Your task to perform on an android device: open app "Google Keep" (install if not already installed) Image 0: 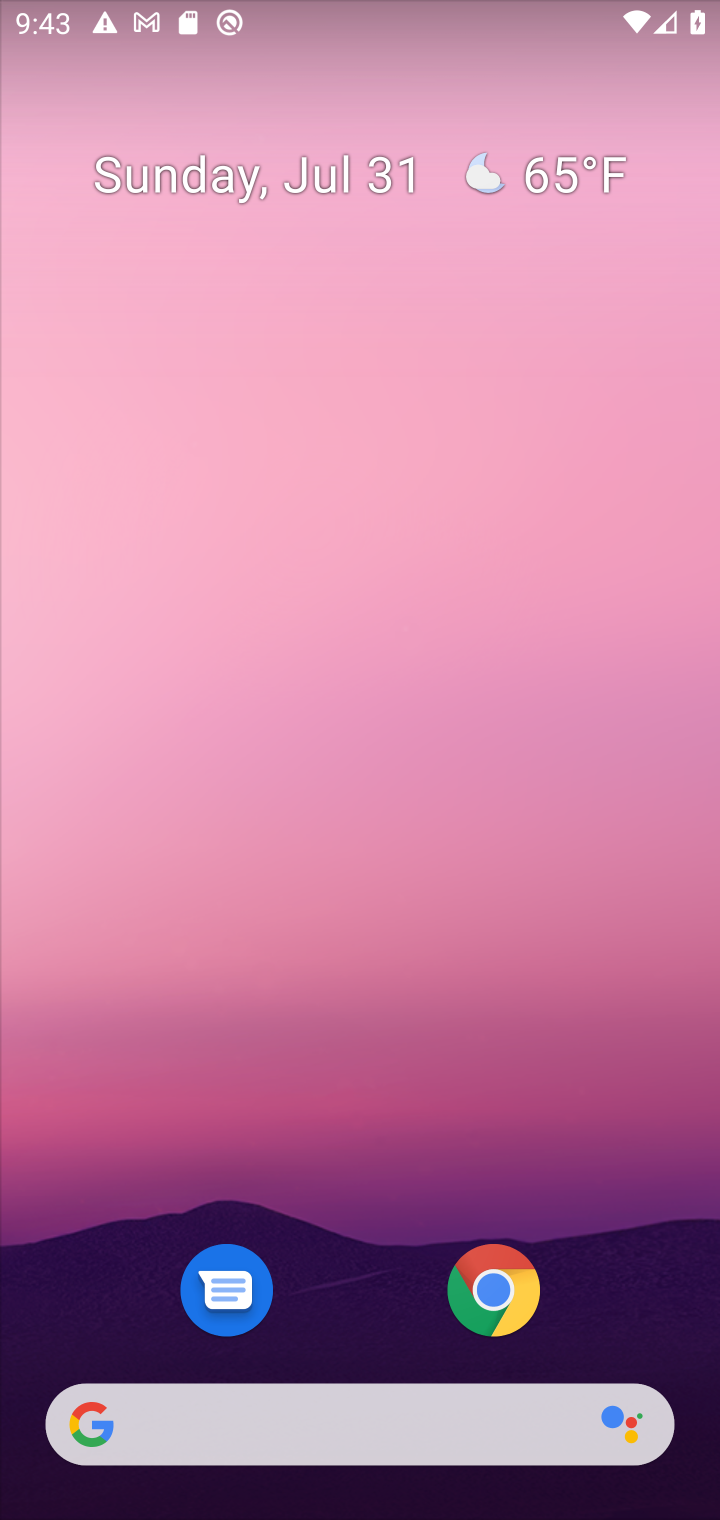
Step 0: press home button
Your task to perform on an android device: open app "Google Keep" (install if not already installed) Image 1: 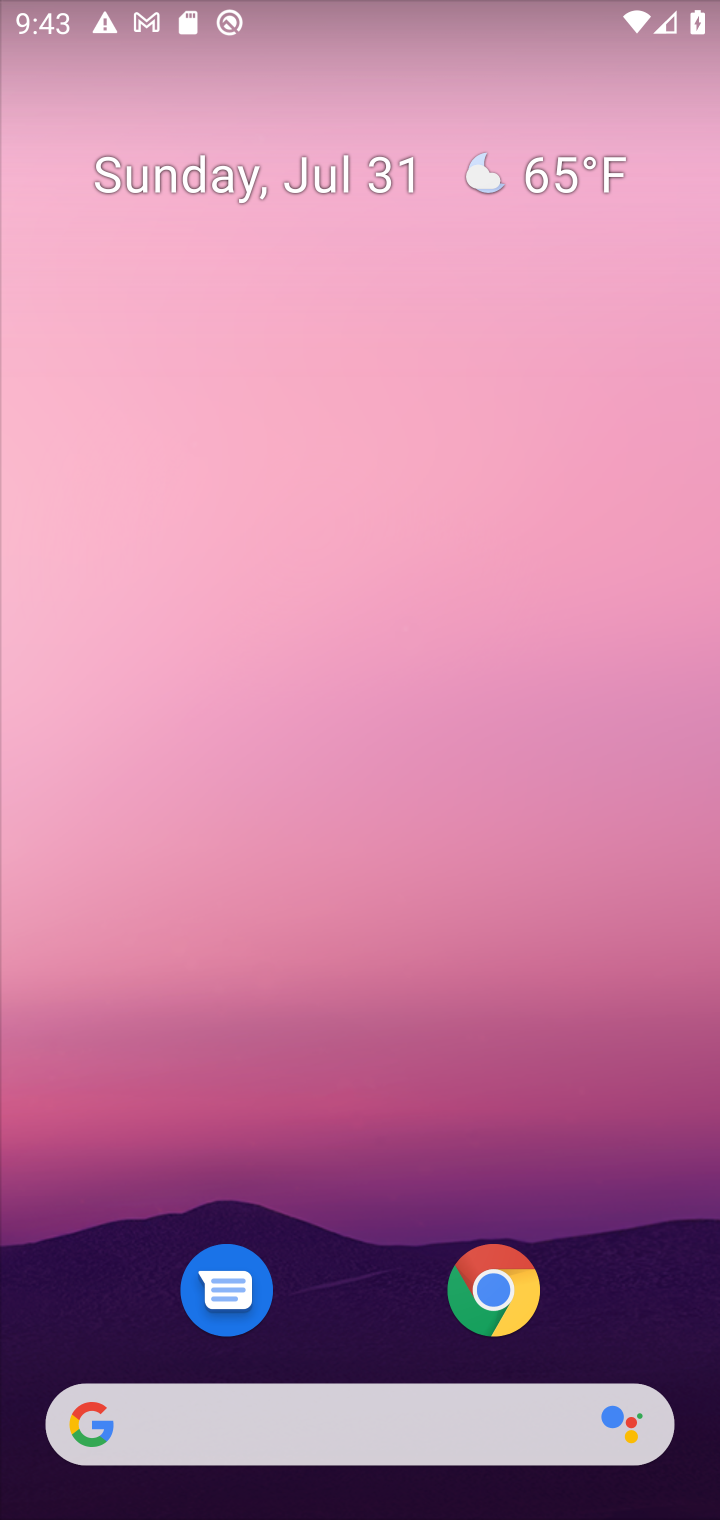
Step 1: drag from (618, 1286) to (636, 101)
Your task to perform on an android device: open app "Google Keep" (install if not already installed) Image 2: 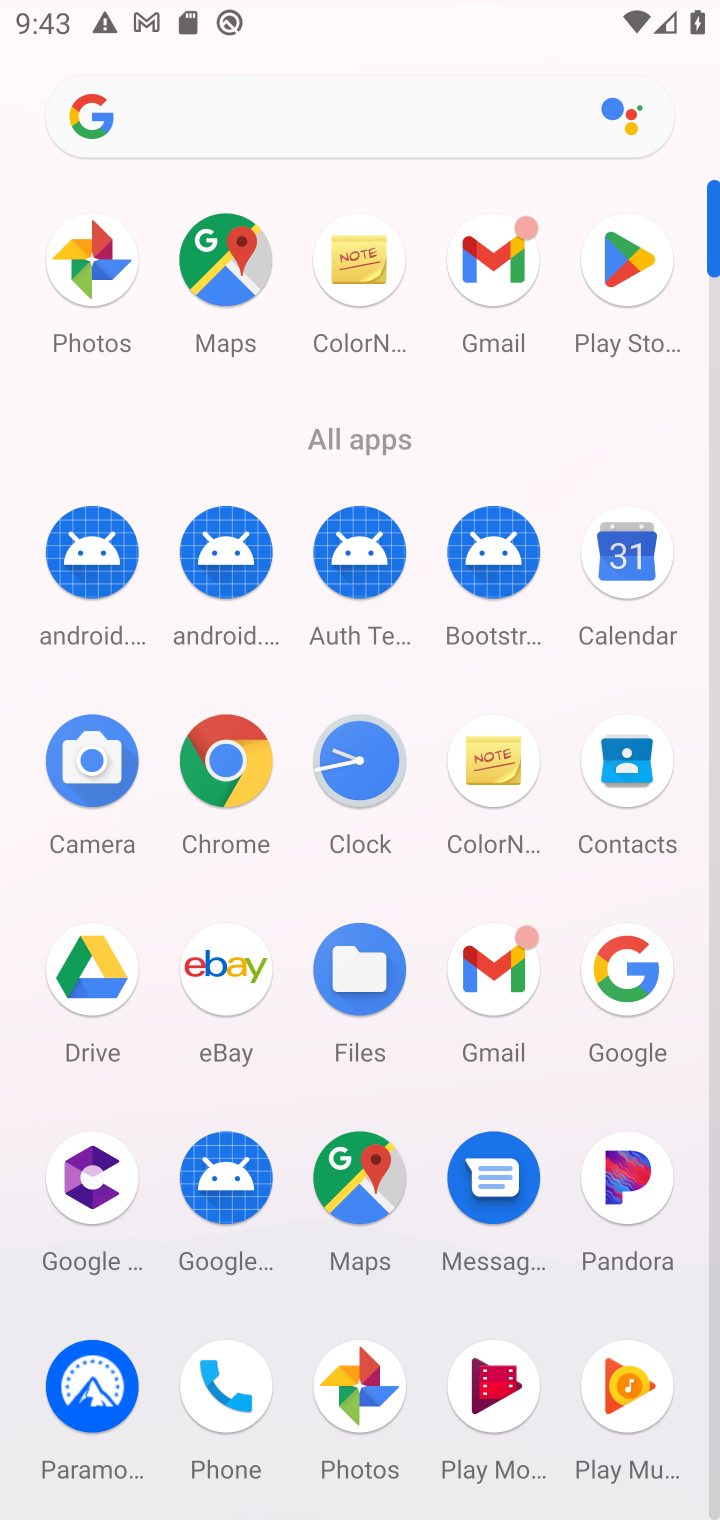
Step 2: click (620, 263)
Your task to perform on an android device: open app "Google Keep" (install if not already installed) Image 3: 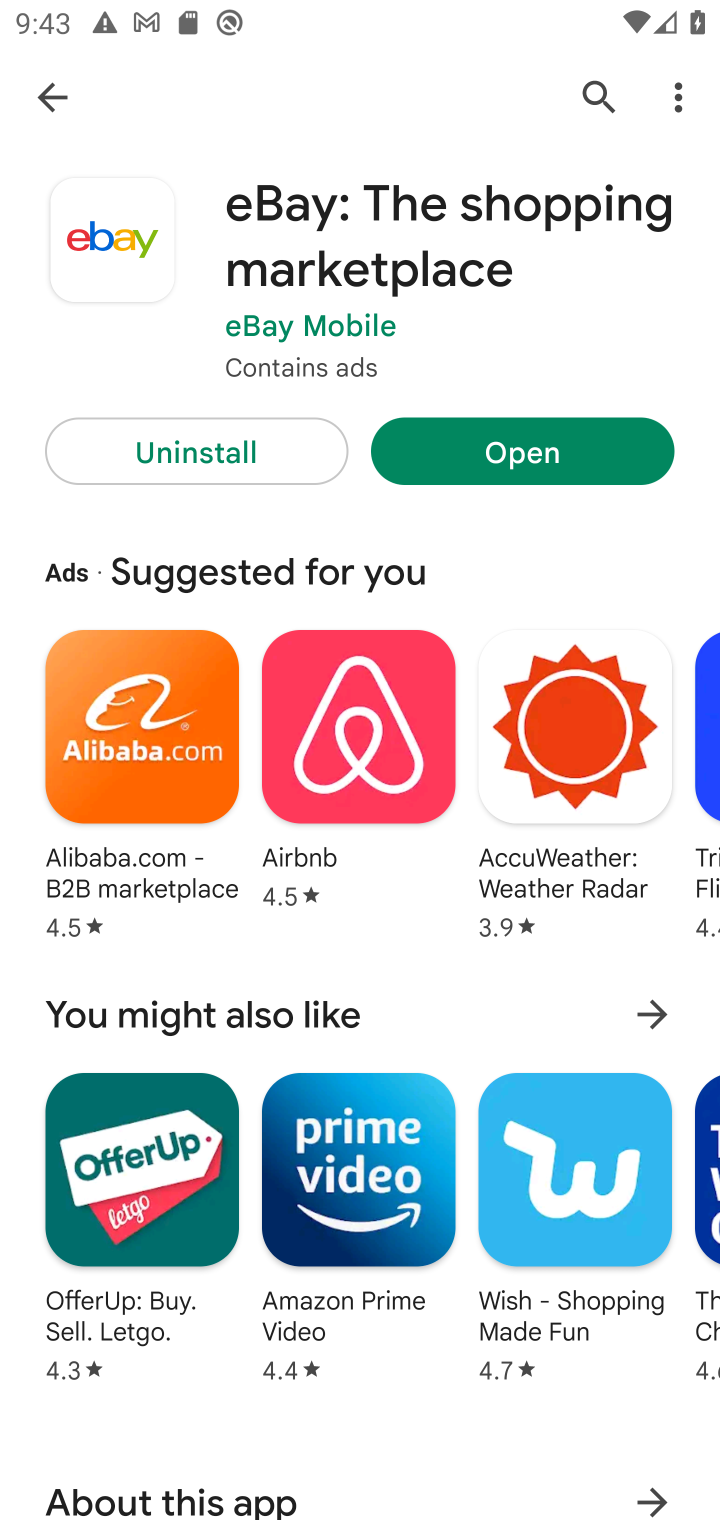
Step 3: click (57, 88)
Your task to perform on an android device: open app "Google Keep" (install if not already installed) Image 4: 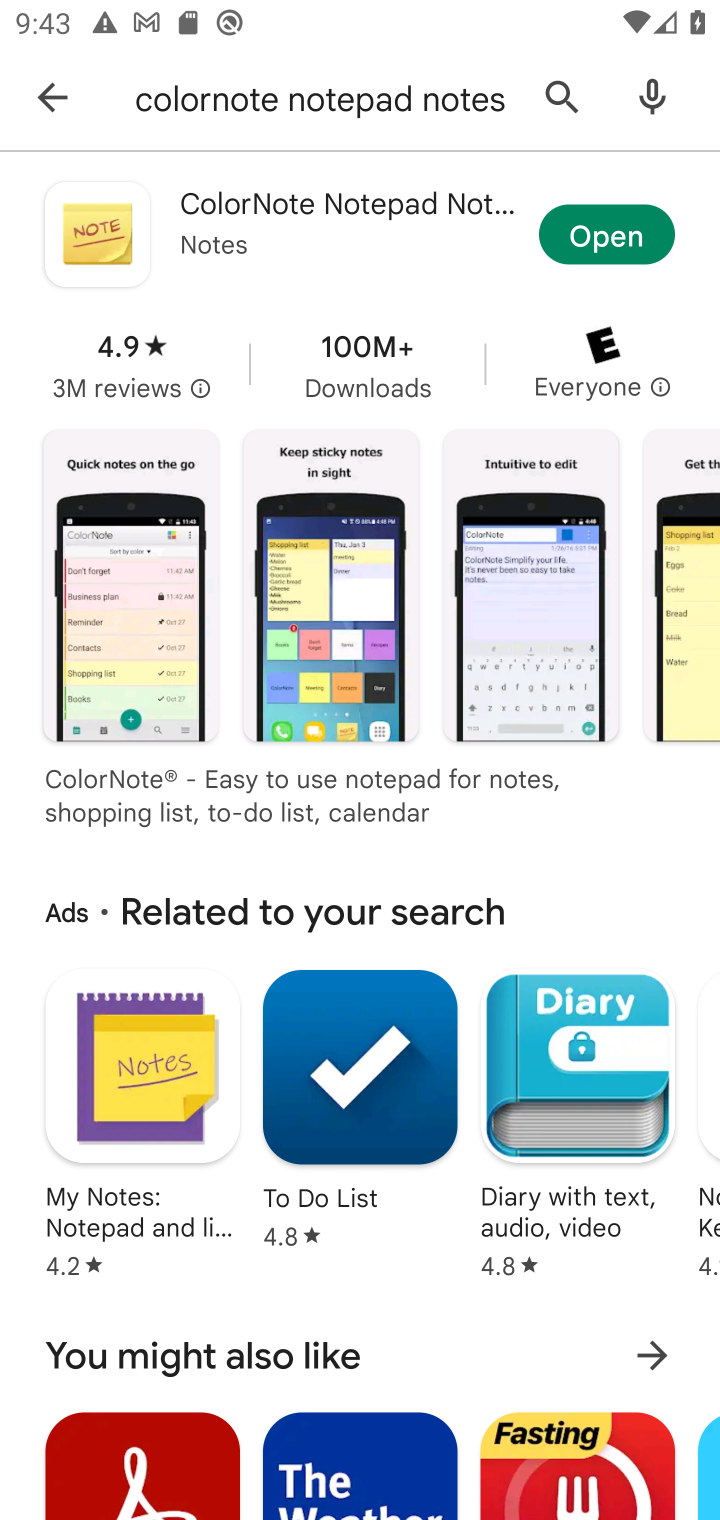
Step 4: click (547, 100)
Your task to perform on an android device: open app "Google Keep" (install if not already installed) Image 5: 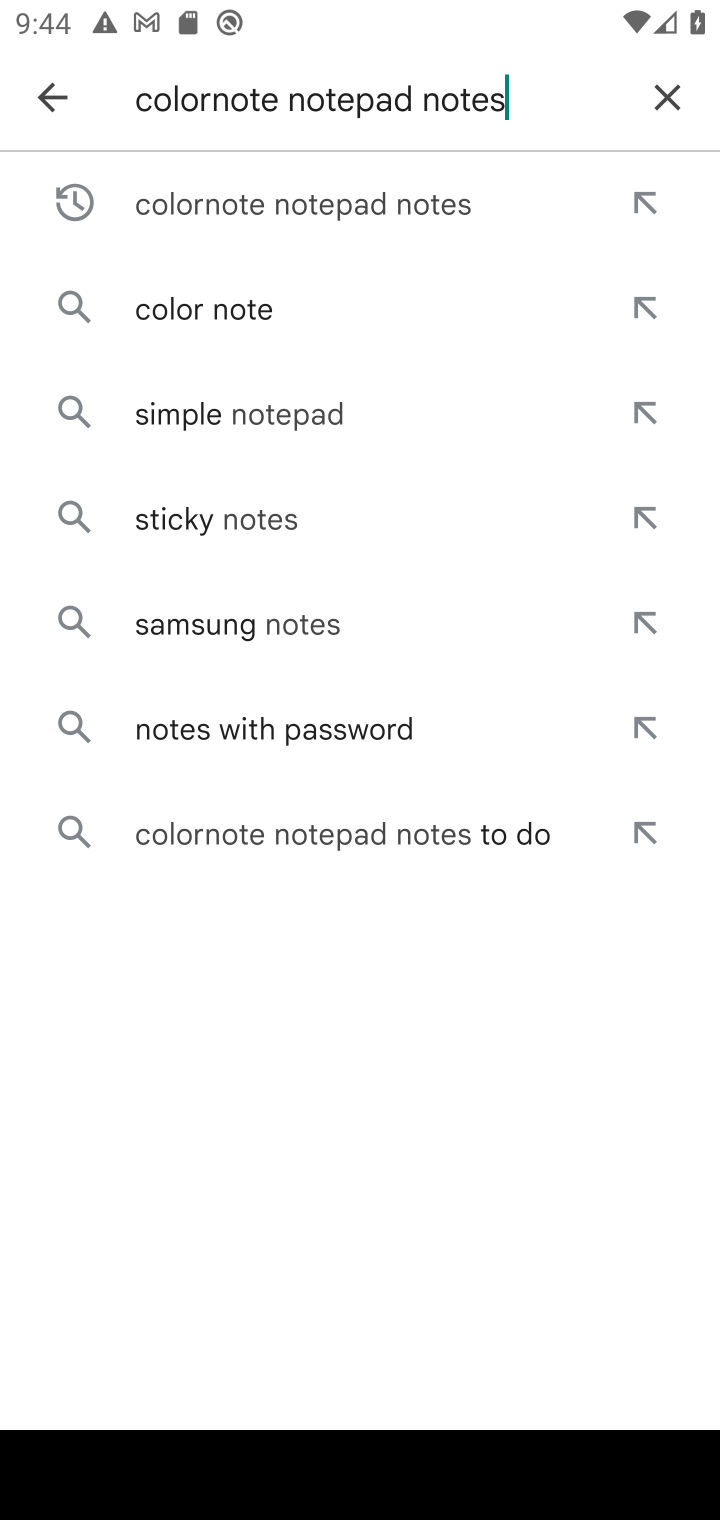
Step 5: click (657, 99)
Your task to perform on an android device: open app "Google Keep" (install if not already installed) Image 6: 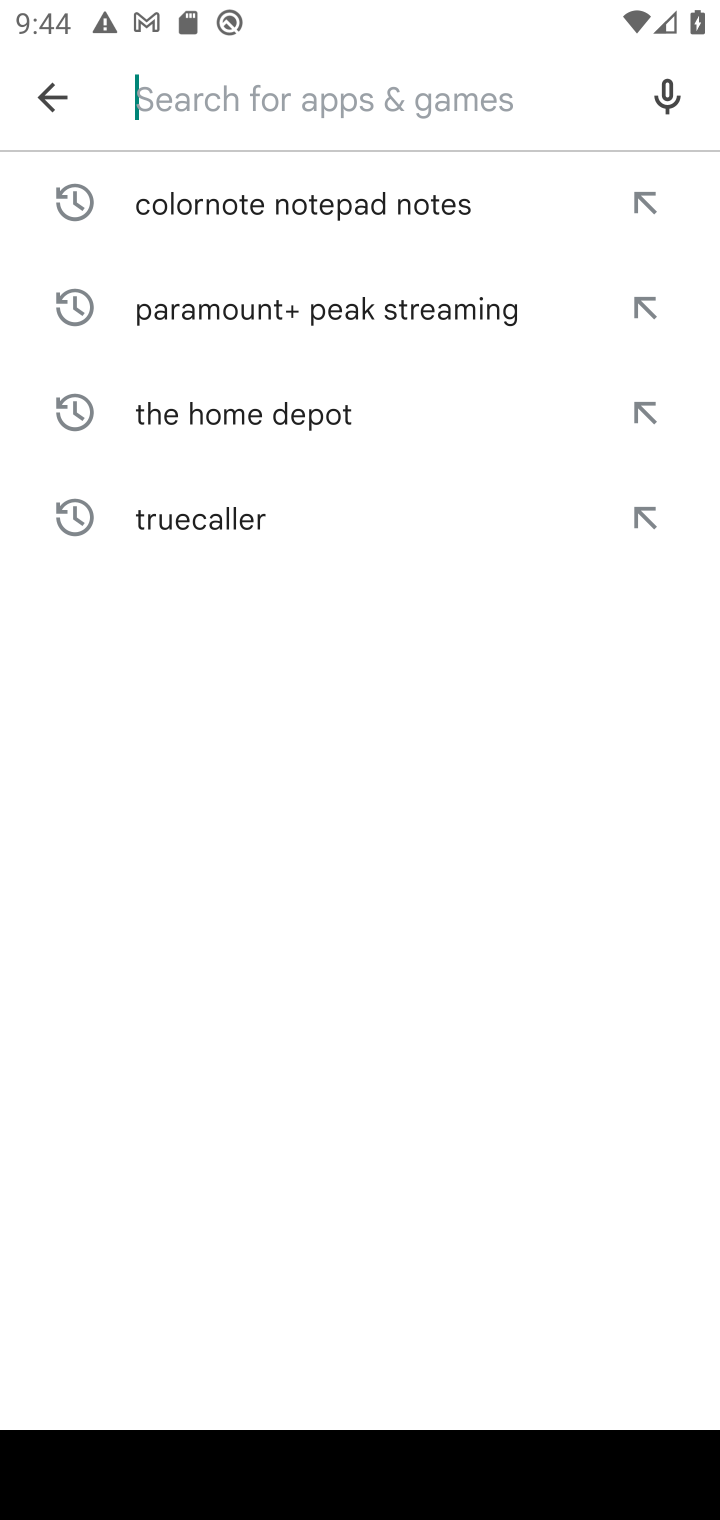
Step 6: type "Google Keep"
Your task to perform on an android device: open app "Google Keep" (install if not already installed) Image 7: 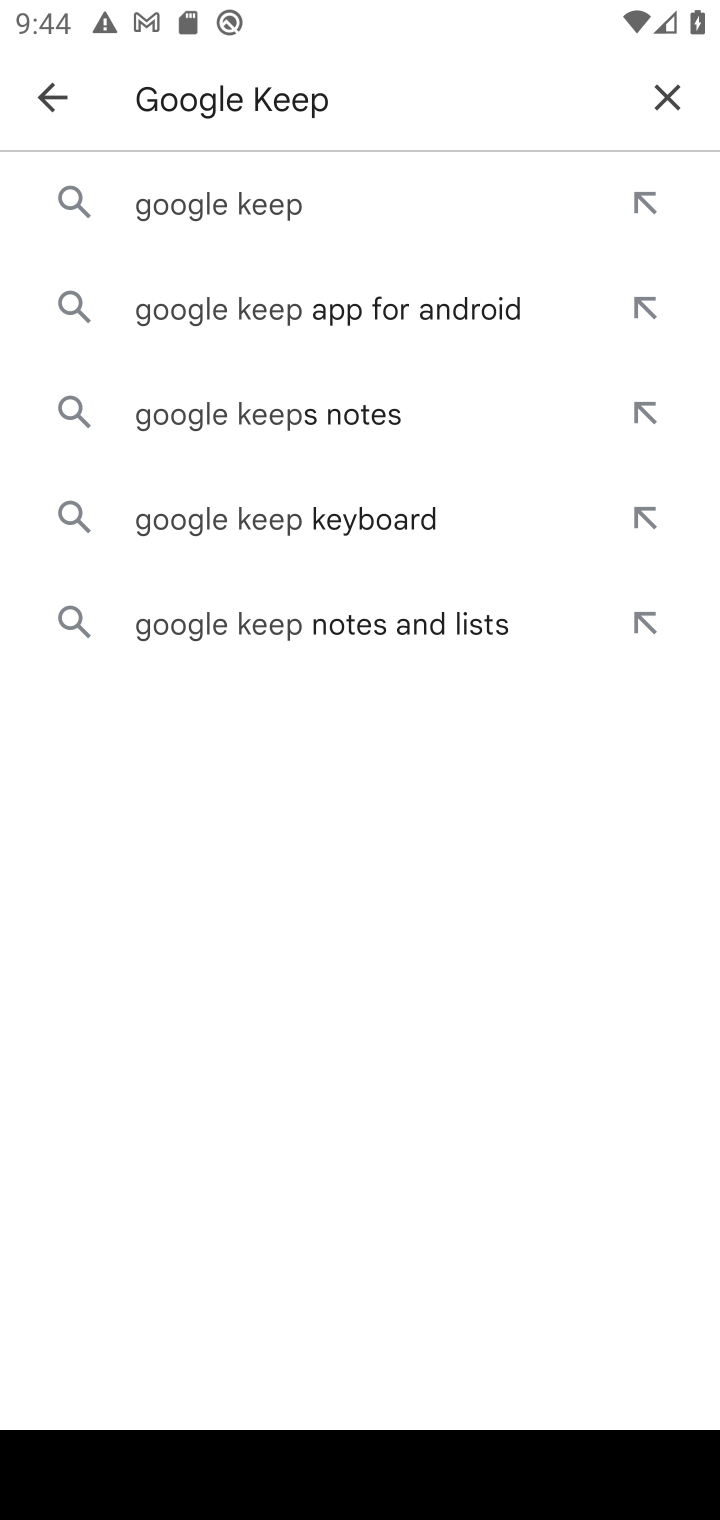
Step 7: click (351, 198)
Your task to perform on an android device: open app "Google Keep" (install if not already installed) Image 8: 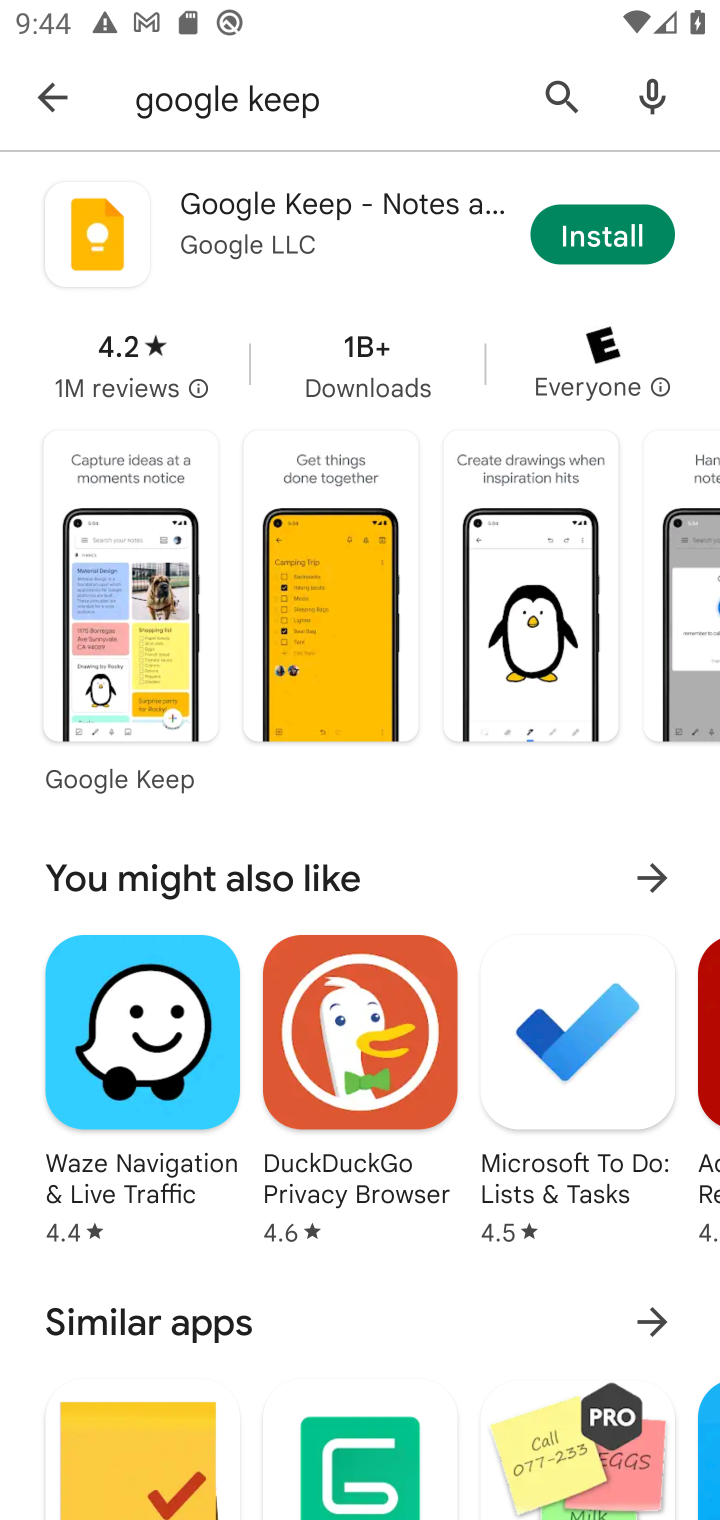
Step 8: click (626, 227)
Your task to perform on an android device: open app "Google Keep" (install if not already installed) Image 9: 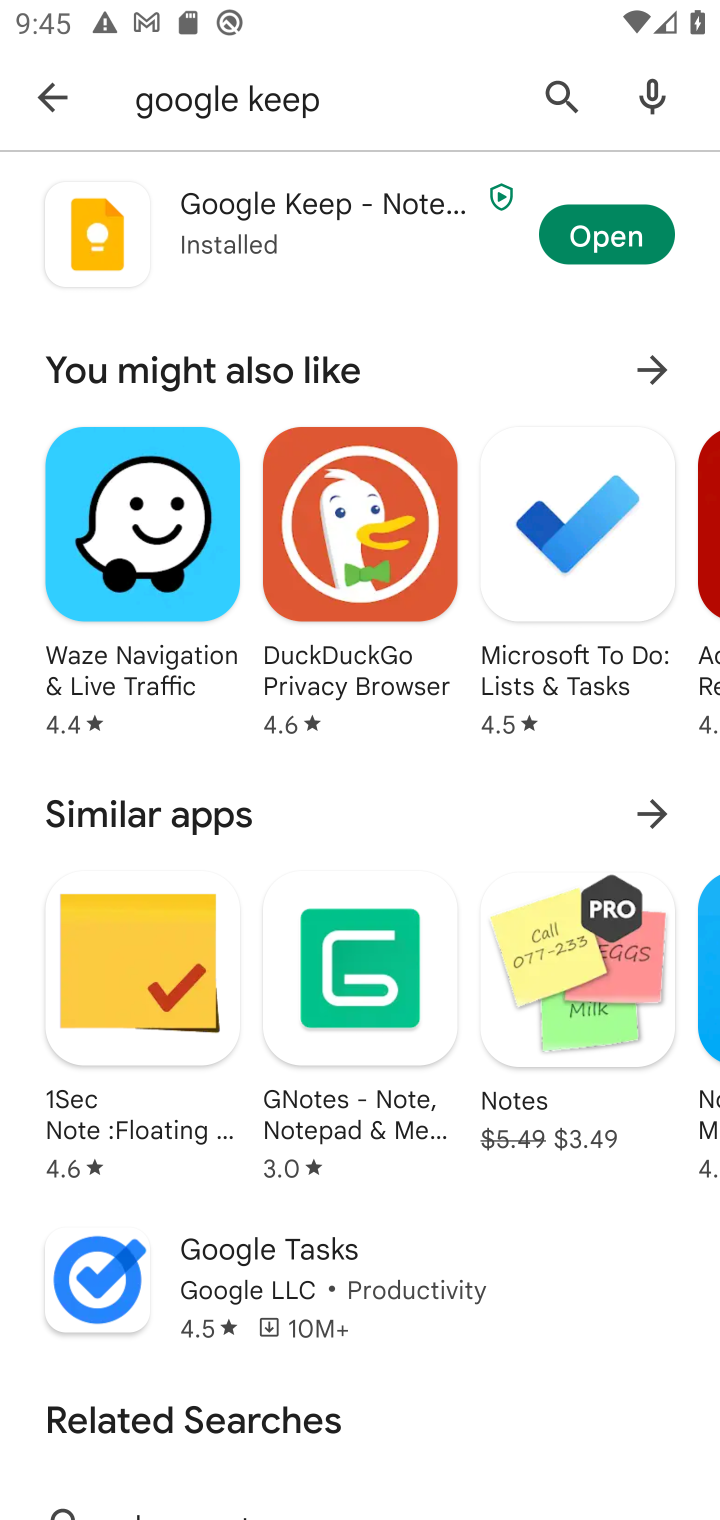
Step 9: click (610, 233)
Your task to perform on an android device: open app "Google Keep" (install if not already installed) Image 10: 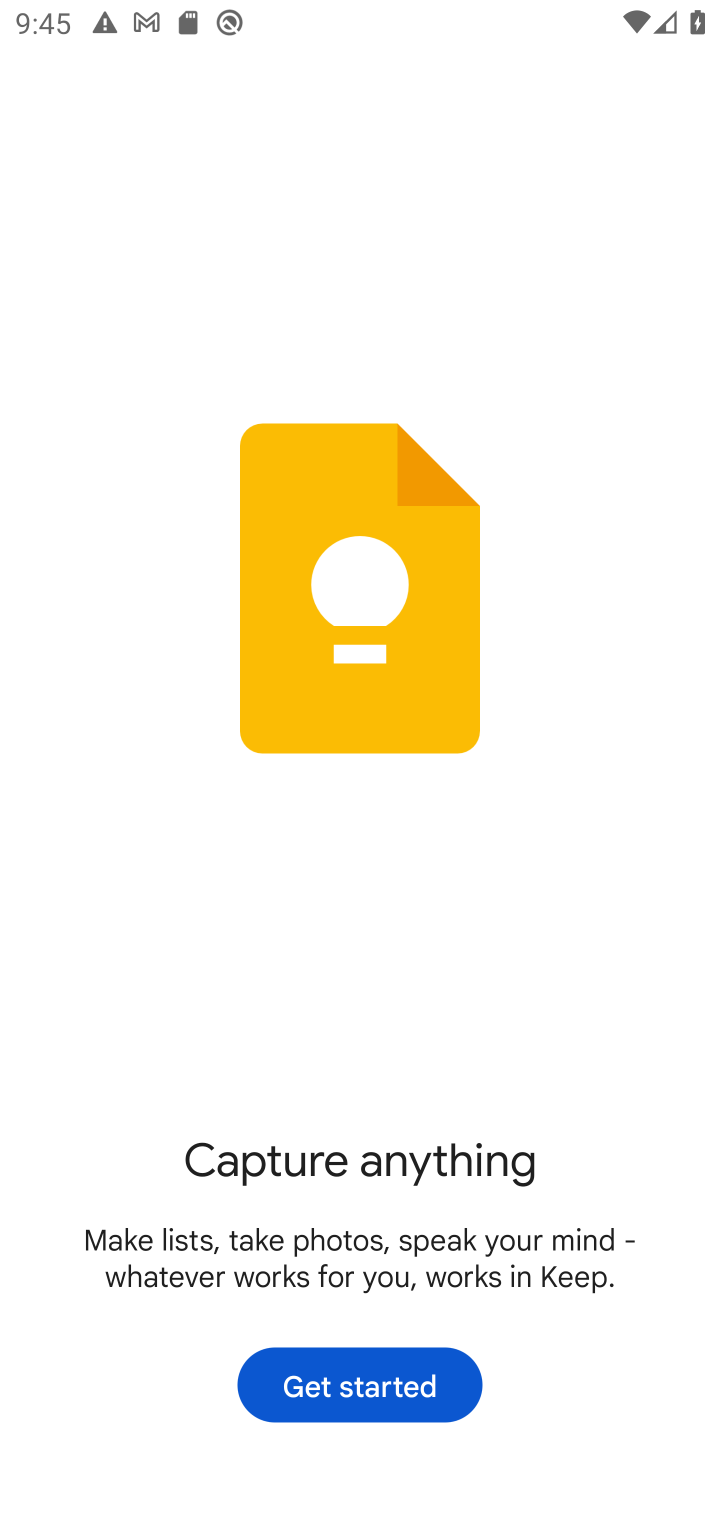
Step 10: task complete